Your task to perform on an android device: open app "Adobe Acrobat Reader: Edit PDF" (install if not already installed), go to login, and select forgot password Image 0: 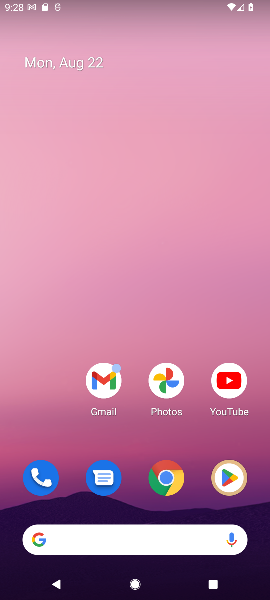
Step 0: click (221, 485)
Your task to perform on an android device: open app "Adobe Acrobat Reader: Edit PDF" (install if not already installed), go to login, and select forgot password Image 1: 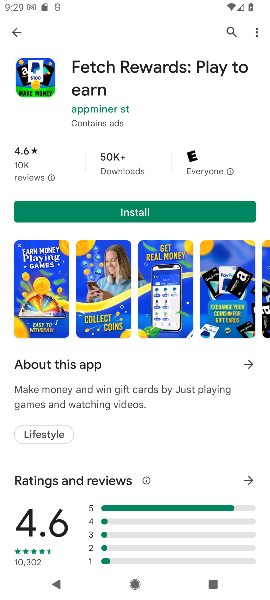
Step 1: click (231, 34)
Your task to perform on an android device: open app "Adobe Acrobat Reader: Edit PDF" (install if not already installed), go to login, and select forgot password Image 2: 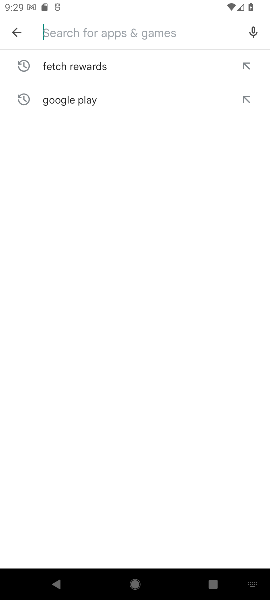
Step 2: type "adobe"
Your task to perform on an android device: open app "Adobe Acrobat Reader: Edit PDF" (install if not already installed), go to login, and select forgot password Image 3: 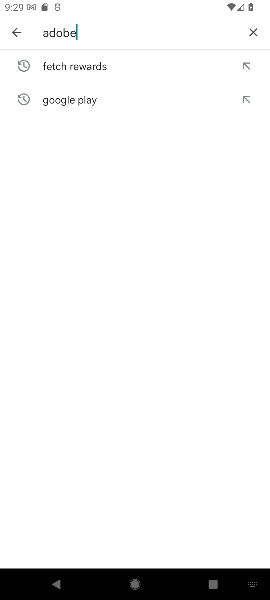
Step 3: click (252, 36)
Your task to perform on an android device: open app "Adobe Acrobat Reader: Edit PDF" (install if not already installed), go to login, and select forgot password Image 4: 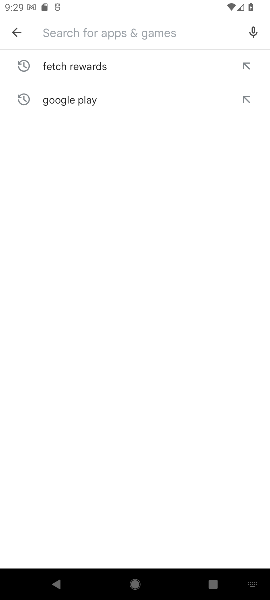
Step 4: type "adobe"
Your task to perform on an android device: open app "Adobe Acrobat Reader: Edit PDF" (install if not already installed), go to login, and select forgot password Image 5: 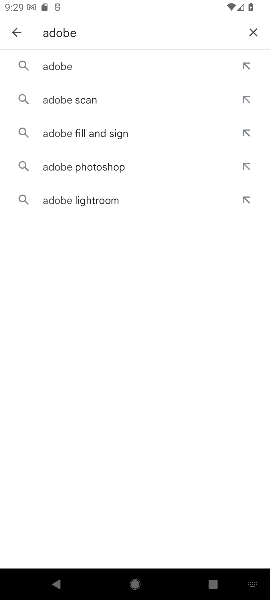
Step 5: click (113, 74)
Your task to perform on an android device: open app "Adobe Acrobat Reader: Edit PDF" (install if not already installed), go to login, and select forgot password Image 6: 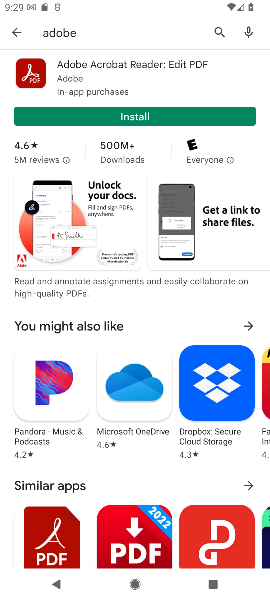
Step 6: click (171, 122)
Your task to perform on an android device: open app "Adobe Acrobat Reader: Edit PDF" (install if not already installed), go to login, and select forgot password Image 7: 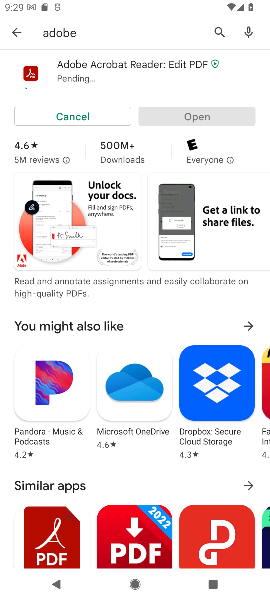
Step 7: task complete